Your task to perform on an android device: Open Chrome and go to the settings page Image 0: 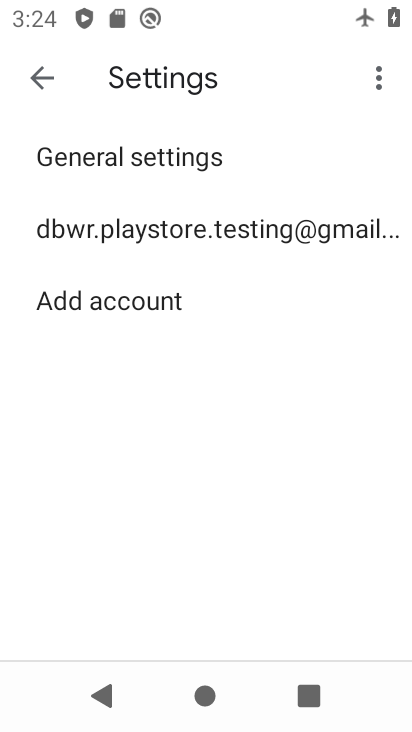
Step 0: press home button
Your task to perform on an android device: Open Chrome and go to the settings page Image 1: 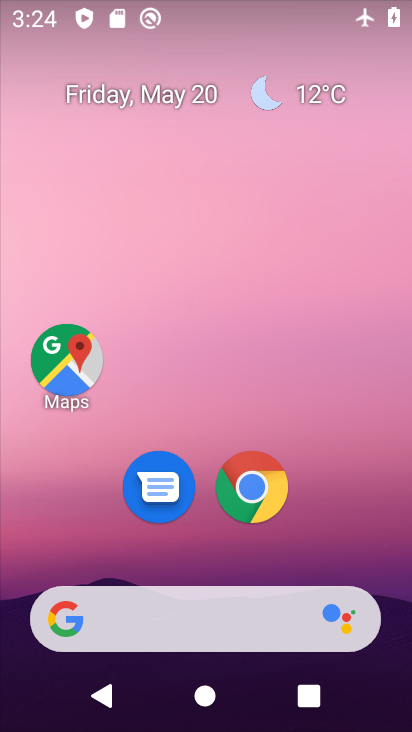
Step 1: click (252, 490)
Your task to perform on an android device: Open Chrome and go to the settings page Image 2: 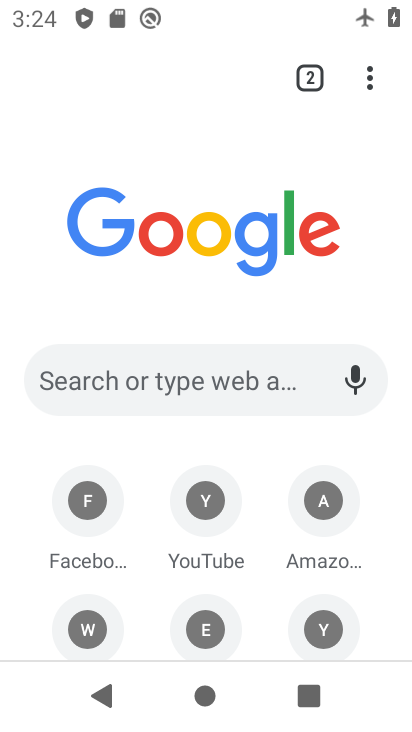
Step 2: click (378, 89)
Your task to perform on an android device: Open Chrome and go to the settings page Image 3: 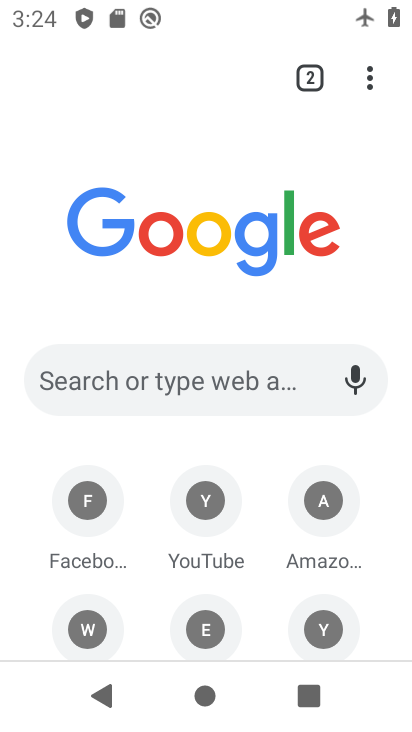
Step 3: click (374, 85)
Your task to perform on an android device: Open Chrome and go to the settings page Image 4: 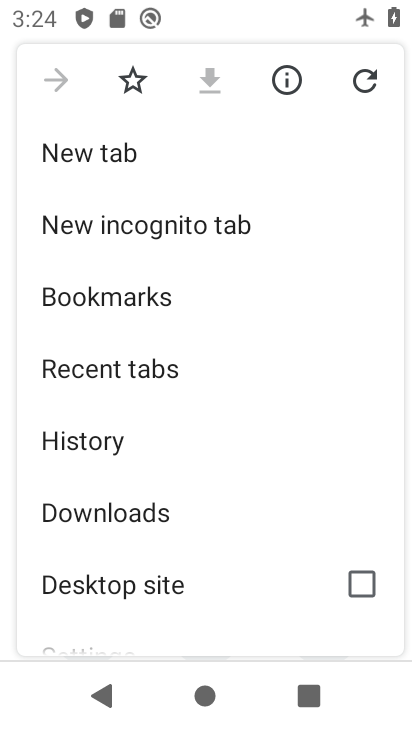
Step 4: drag from (134, 518) to (127, 276)
Your task to perform on an android device: Open Chrome and go to the settings page Image 5: 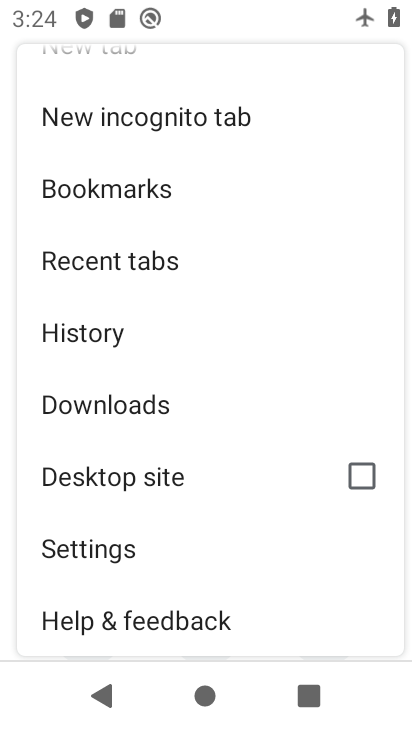
Step 5: click (68, 553)
Your task to perform on an android device: Open Chrome and go to the settings page Image 6: 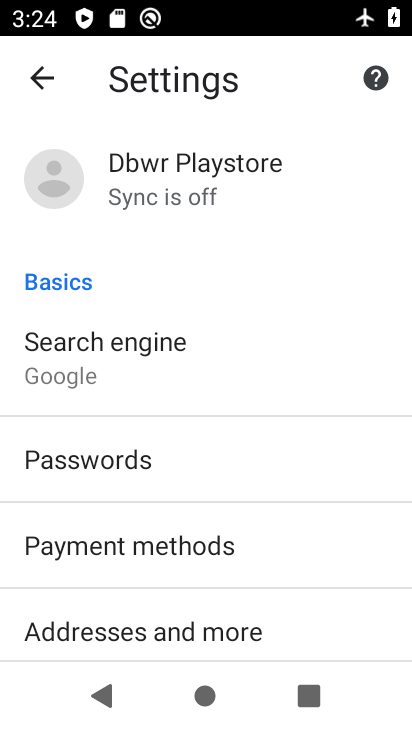
Step 6: task complete